Your task to perform on an android device: Open the Play Movies app and select the watchlist tab. Image 0: 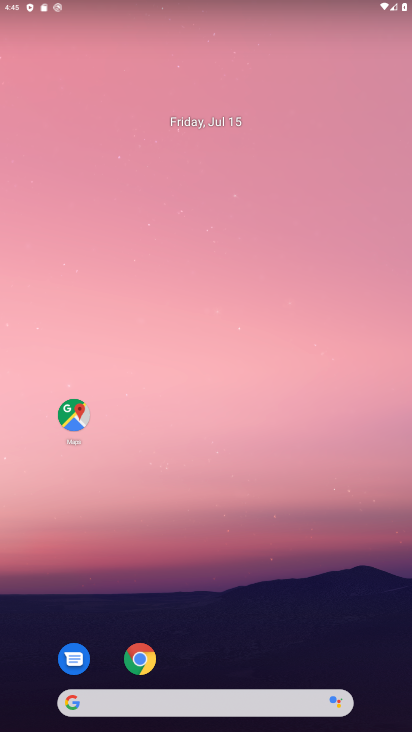
Step 0: drag from (240, 617) to (393, 21)
Your task to perform on an android device: Open the Play Movies app and select the watchlist tab. Image 1: 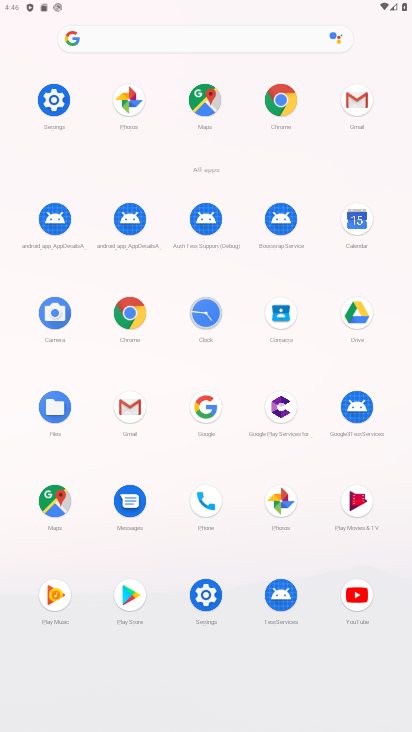
Step 1: click (353, 494)
Your task to perform on an android device: Open the Play Movies app and select the watchlist tab. Image 2: 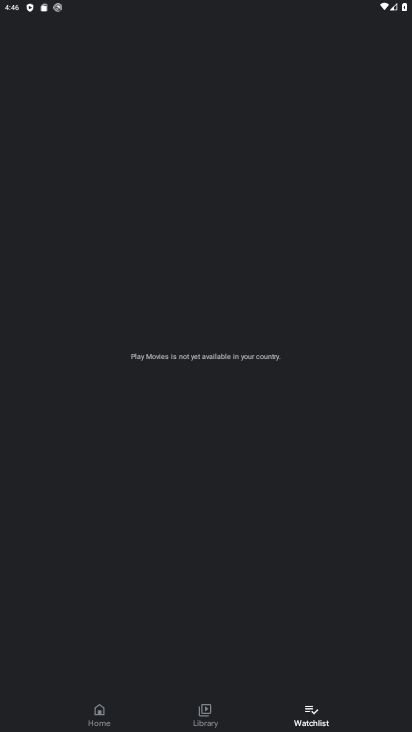
Step 2: task complete